Your task to perform on an android device: snooze an email in the gmail app Image 0: 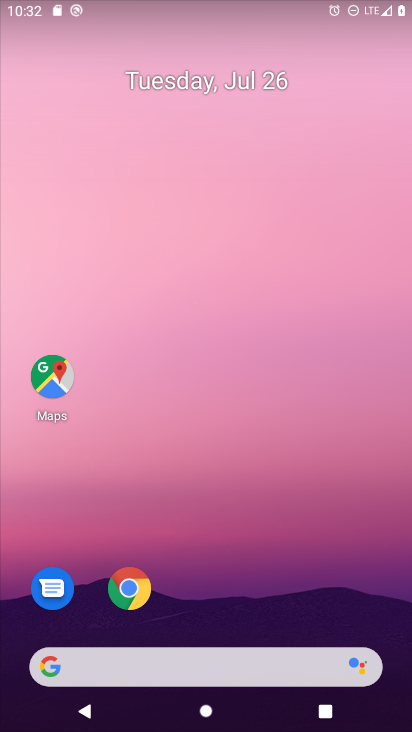
Step 0: drag from (180, 593) to (259, 84)
Your task to perform on an android device: snooze an email in the gmail app Image 1: 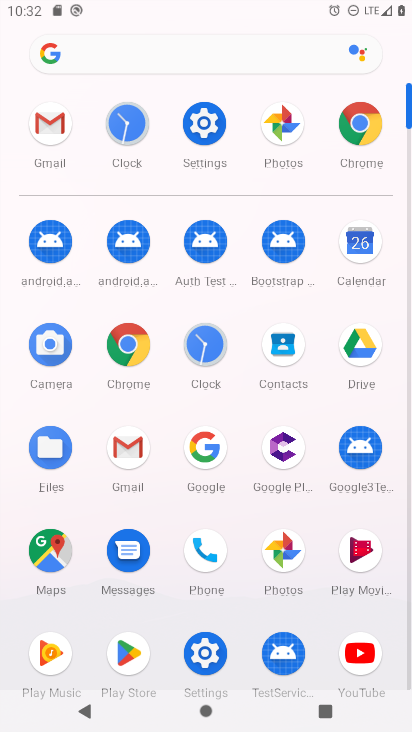
Step 1: click (120, 440)
Your task to perform on an android device: snooze an email in the gmail app Image 2: 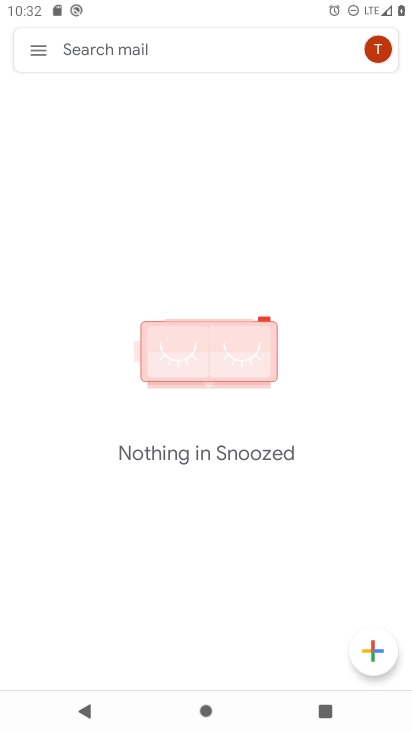
Step 2: click (35, 54)
Your task to perform on an android device: snooze an email in the gmail app Image 3: 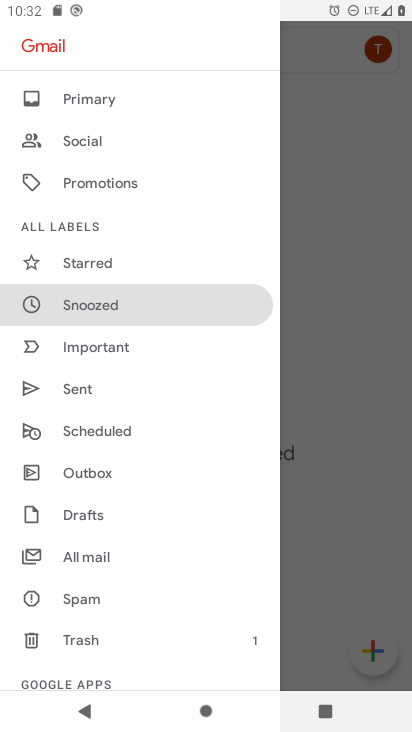
Step 3: click (84, 570)
Your task to perform on an android device: snooze an email in the gmail app Image 4: 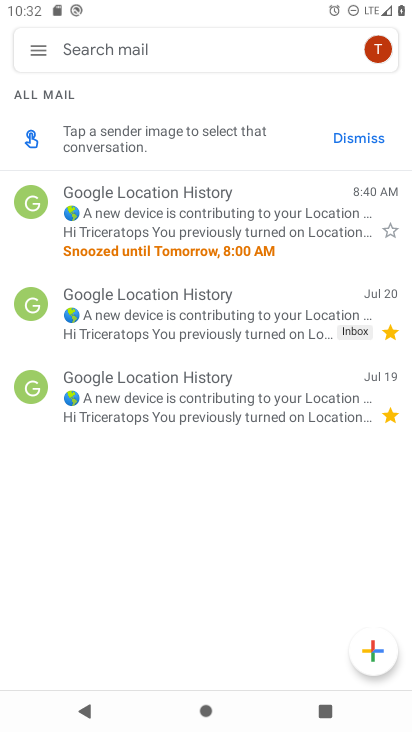
Step 4: click (183, 344)
Your task to perform on an android device: snooze an email in the gmail app Image 5: 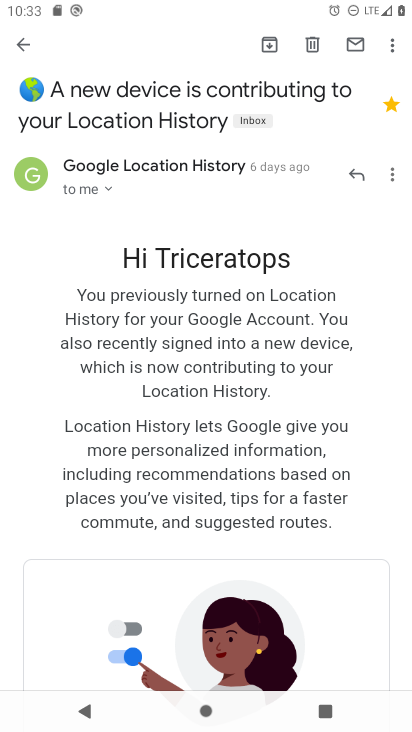
Step 5: click (390, 61)
Your task to perform on an android device: snooze an email in the gmail app Image 6: 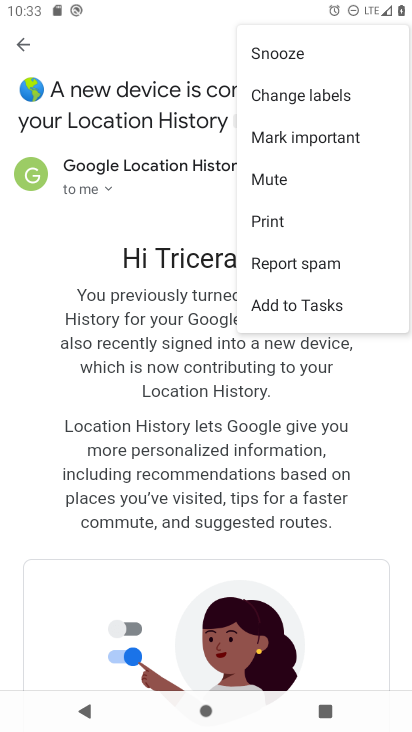
Step 6: click (276, 46)
Your task to perform on an android device: snooze an email in the gmail app Image 7: 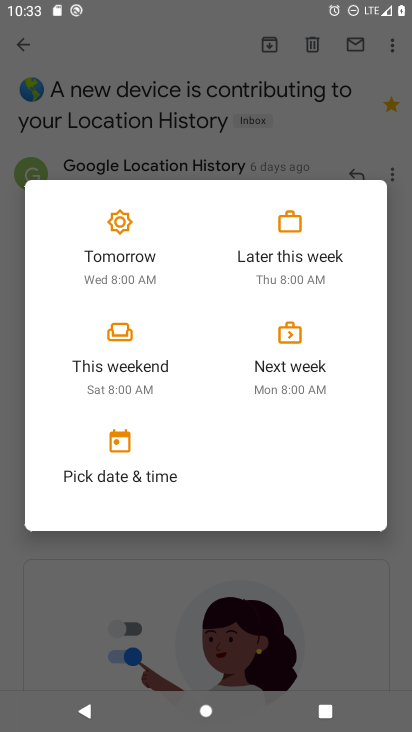
Step 7: click (266, 263)
Your task to perform on an android device: snooze an email in the gmail app Image 8: 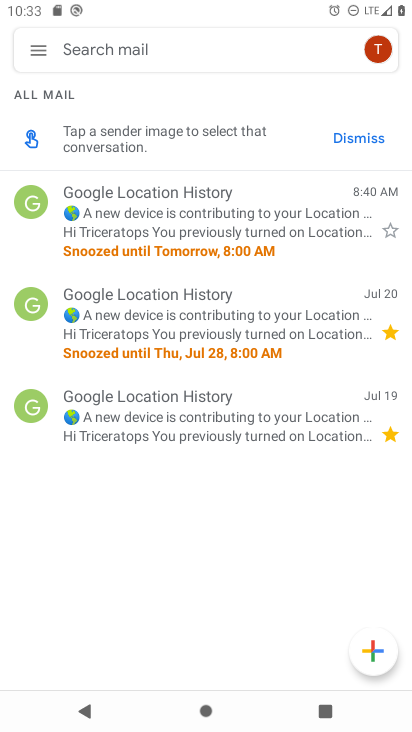
Step 8: task complete